Your task to perform on an android device: change keyboard looks Image 0: 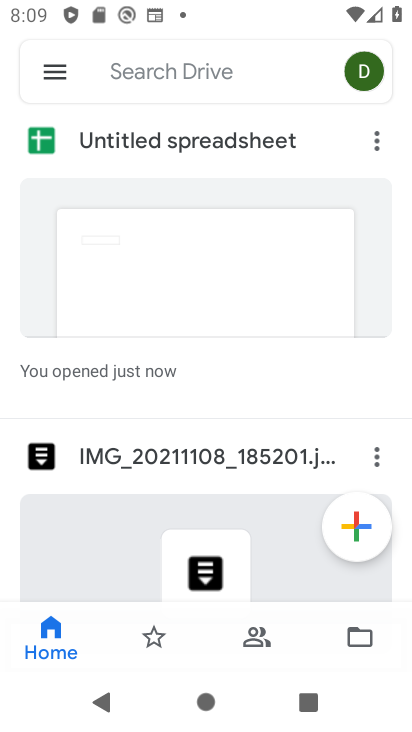
Step 0: press home button
Your task to perform on an android device: change keyboard looks Image 1: 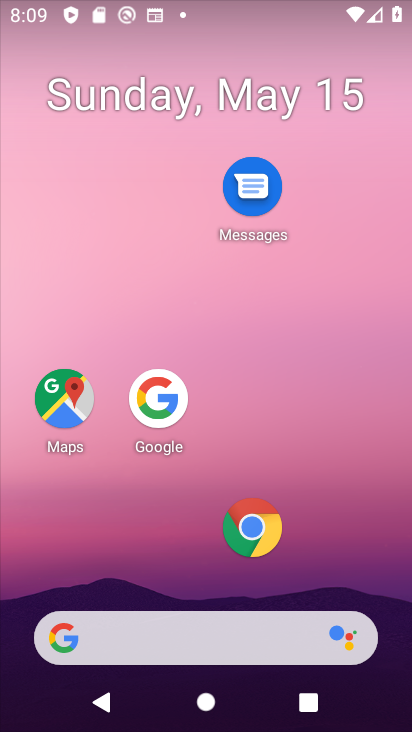
Step 1: drag from (152, 652) to (315, 151)
Your task to perform on an android device: change keyboard looks Image 2: 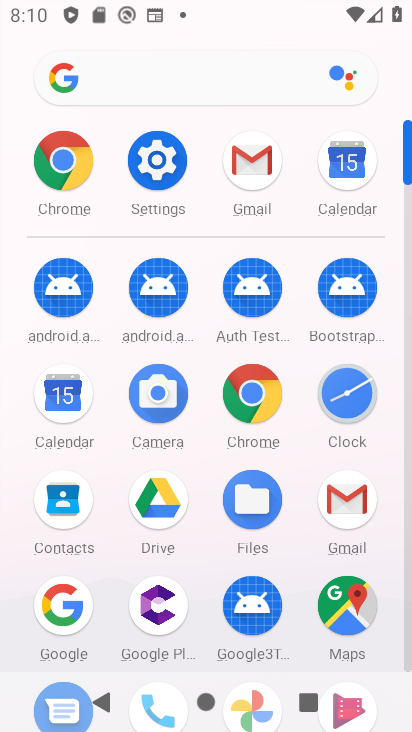
Step 2: click (163, 175)
Your task to perform on an android device: change keyboard looks Image 3: 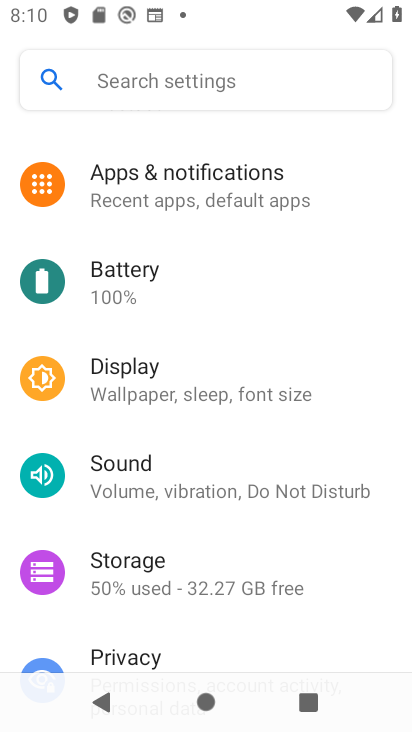
Step 3: drag from (181, 625) to (339, 61)
Your task to perform on an android device: change keyboard looks Image 4: 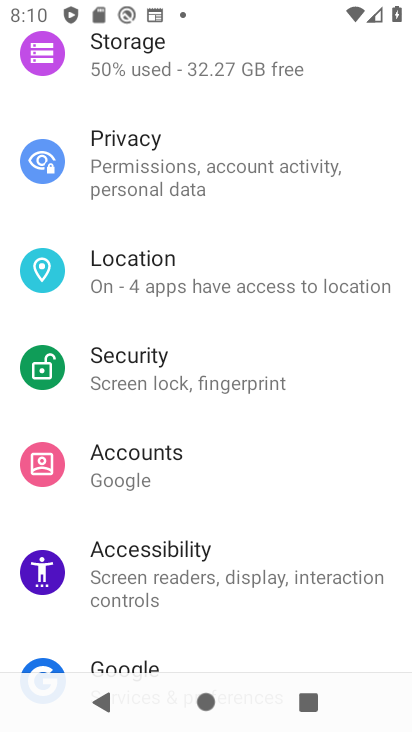
Step 4: drag from (215, 504) to (332, 108)
Your task to perform on an android device: change keyboard looks Image 5: 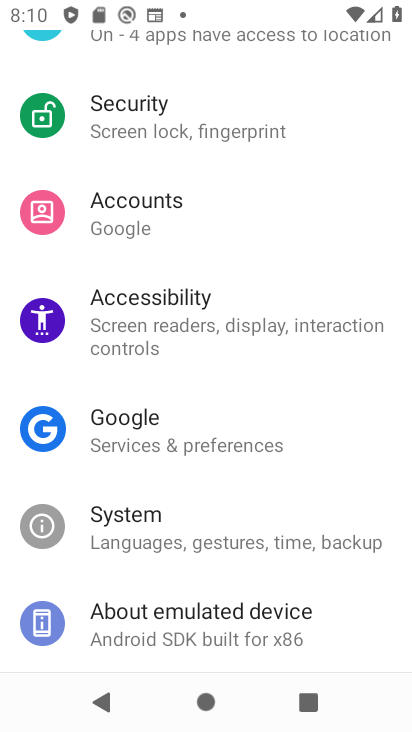
Step 5: click (147, 511)
Your task to perform on an android device: change keyboard looks Image 6: 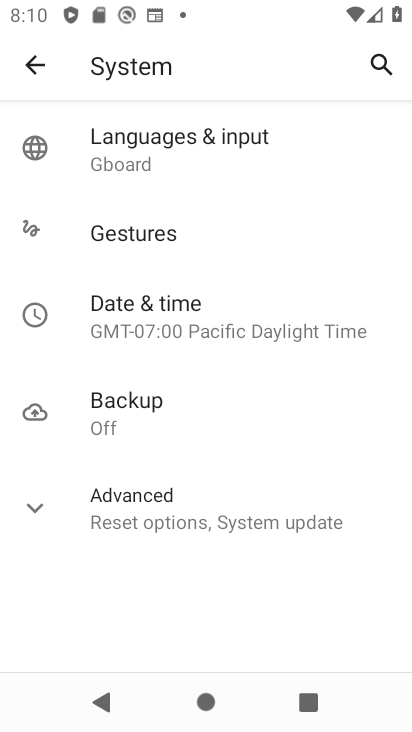
Step 6: click (178, 137)
Your task to perform on an android device: change keyboard looks Image 7: 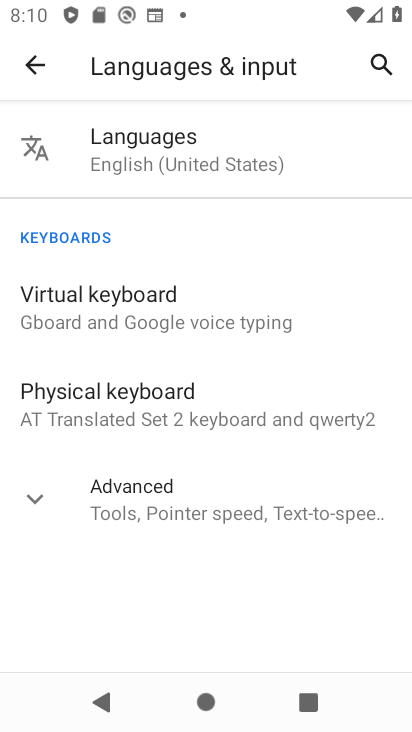
Step 7: click (127, 315)
Your task to perform on an android device: change keyboard looks Image 8: 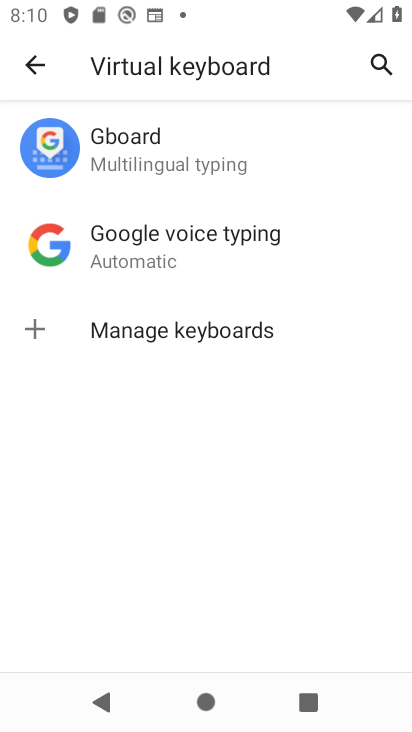
Step 8: click (153, 146)
Your task to perform on an android device: change keyboard looks Image 9: 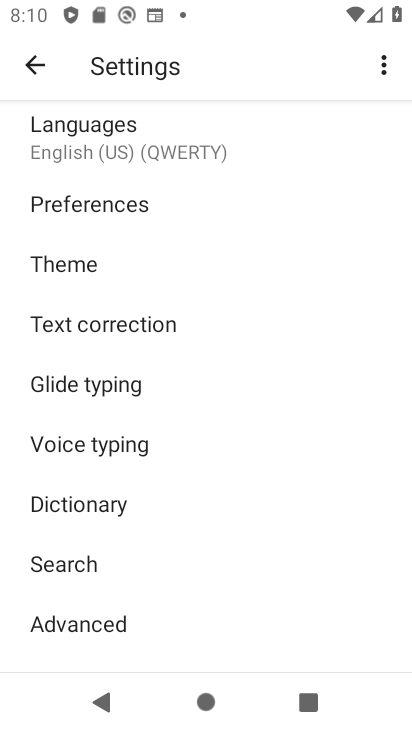
Step 9: click (77, 268)
Your task to perform on an android device: change keyboard looks Image 10: 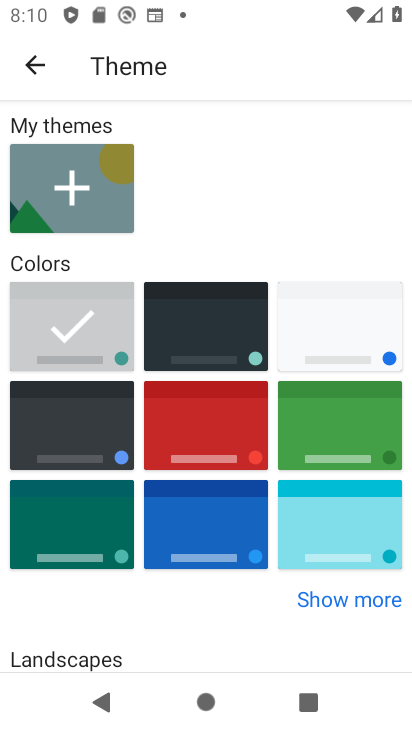
Step 10: click (330, 427)
Your task to perform on an android device: change keyboard looks Image 11: 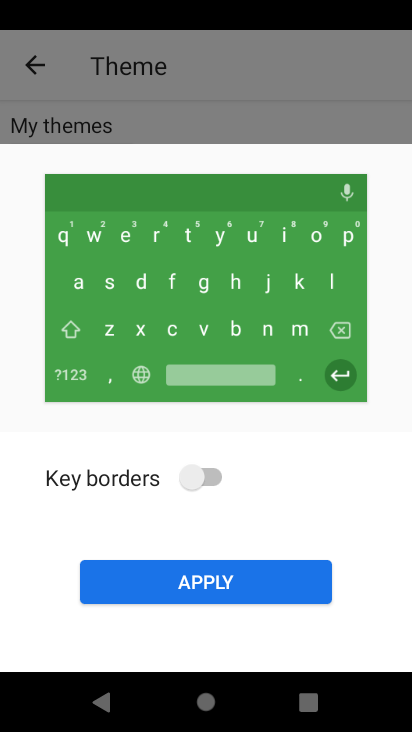
Step 11: click (208, 577)
Your task to perform on an android device: change keyboard looks Image 12: 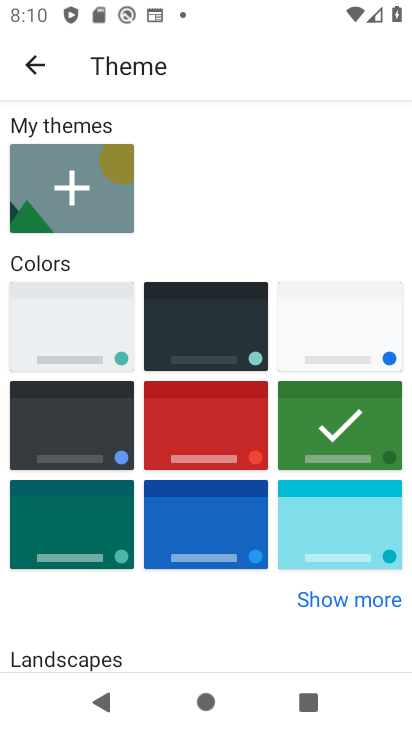
Step 12: task complete